Your task to perform on an android device: Show me productivity apps on the Play Store Image 0: 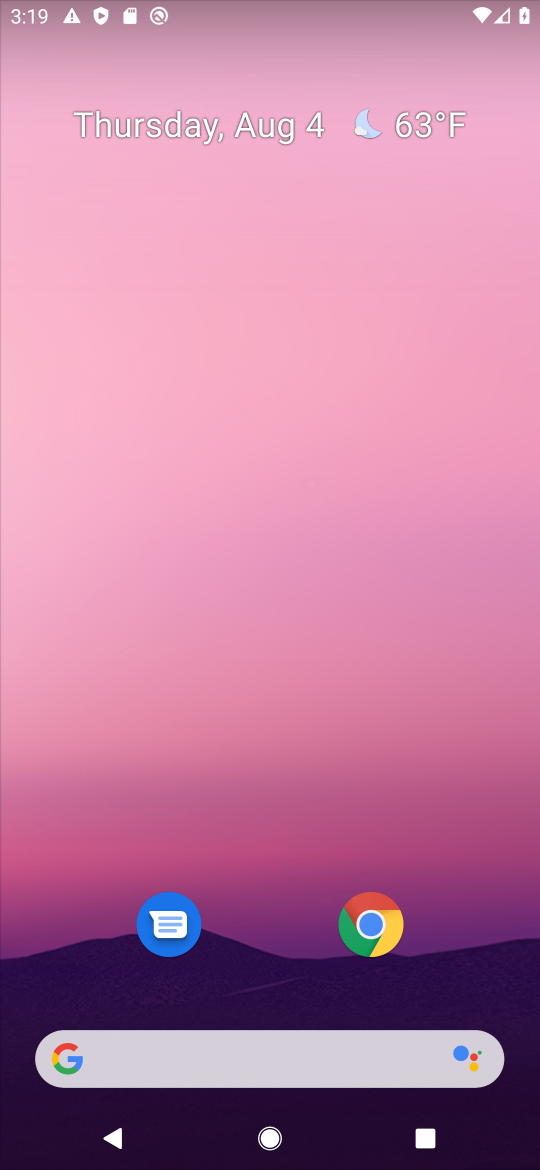
Step 0: press home button
Your task to perform on an android device: Show me productivity apps on the Play Store Image 1: 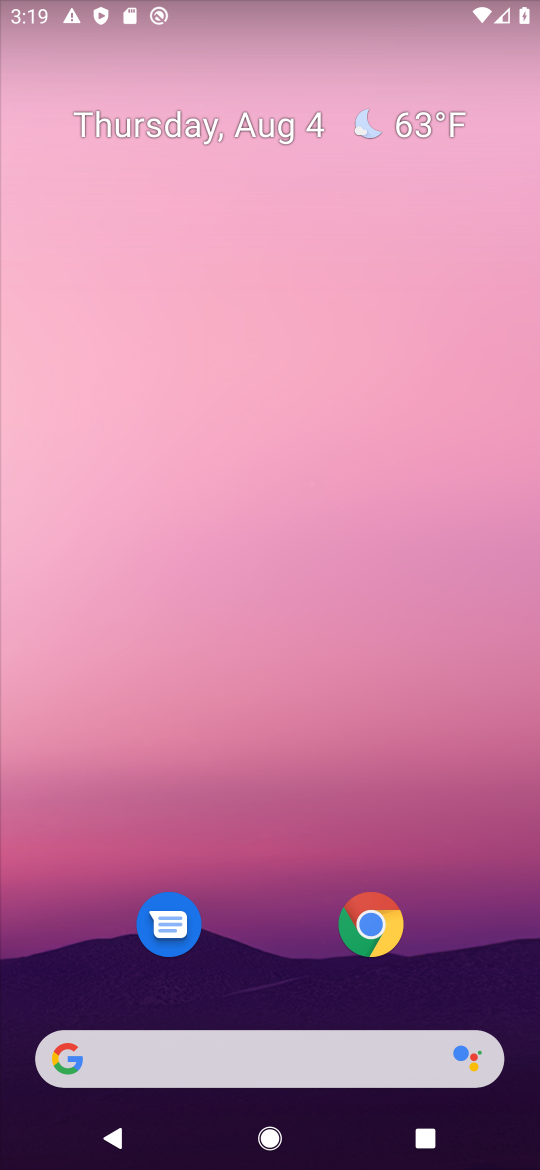
Step 1: drag from (312, 930) to (285, 64)
Your task to perform on an android device: Show me productivity apps on the Play Store Image 2: 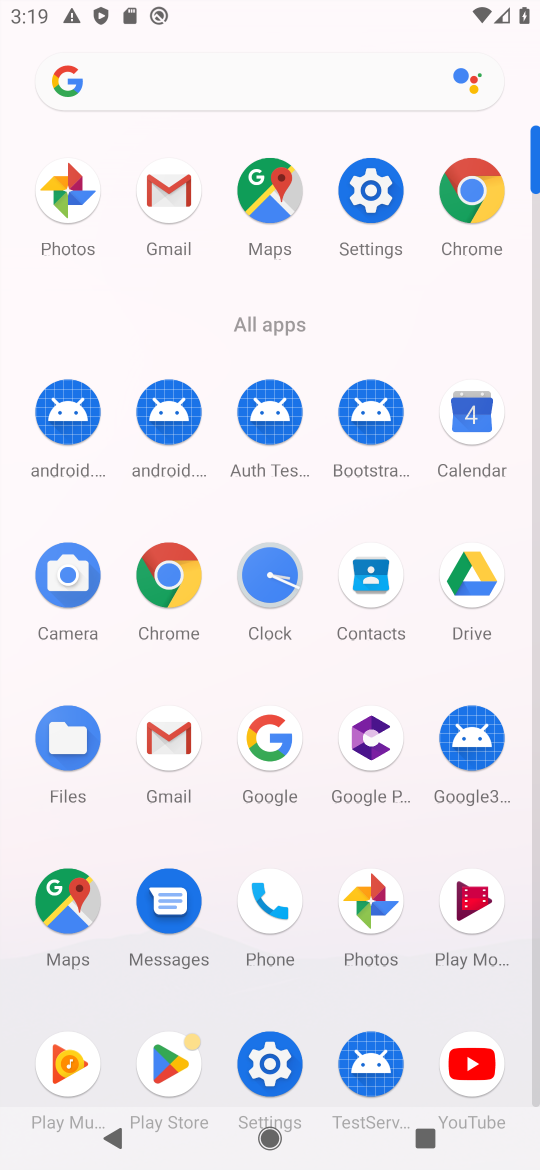
Step 2: click (170, 1067)
Your task to perform on an android device: Show me productivity apps on the Play Store Image 3: 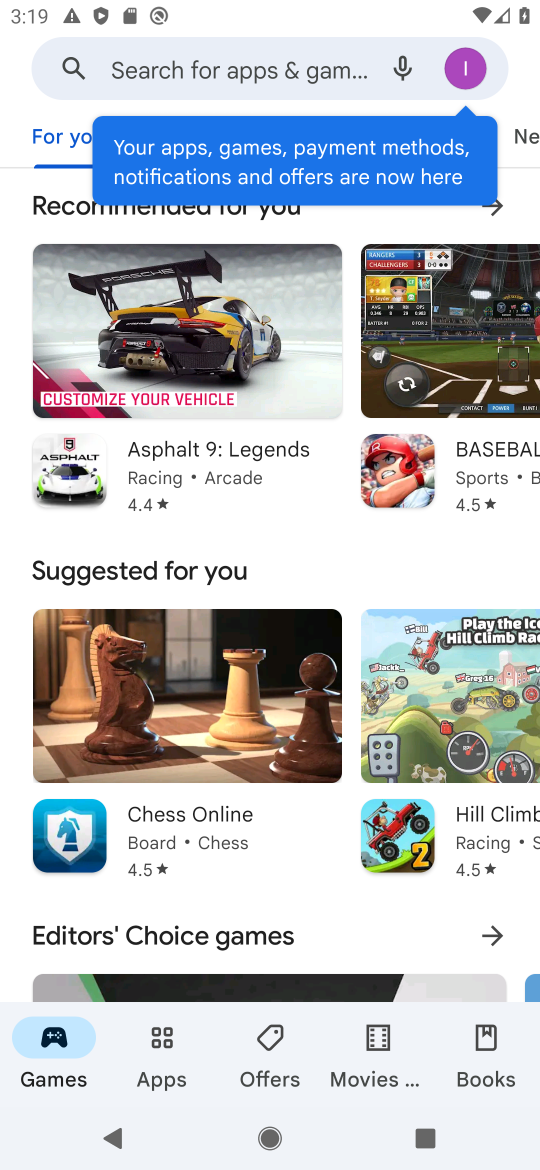
Step 3: click (154, 1043)
Your task to perform on an android device: Show me productivity apps on the Play Store Image 4: 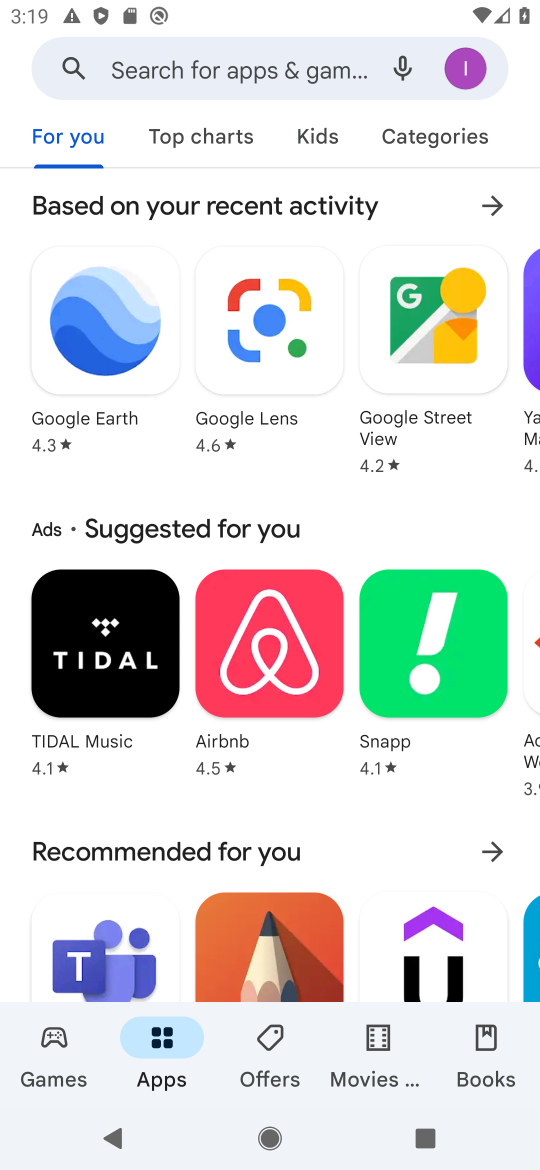
Step 4: task complete